Your task to perform on an android device: Open the stopwatch Image 0: 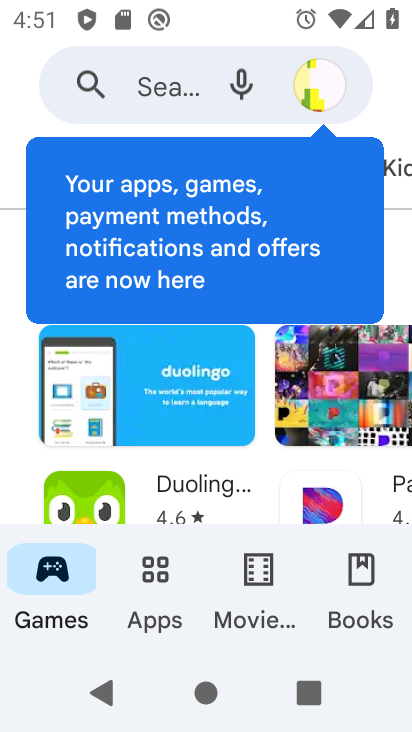
Step 0: press home button
Your task to perform on an android device: Open the stopwatch Image 1: 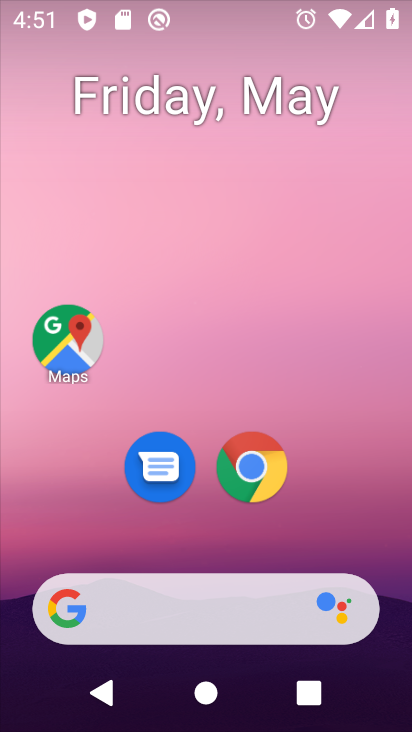
Step 1: drag from (345, 483) to (355, 81)
Your task to perform on an android device: Open the stopwatch Image 2: 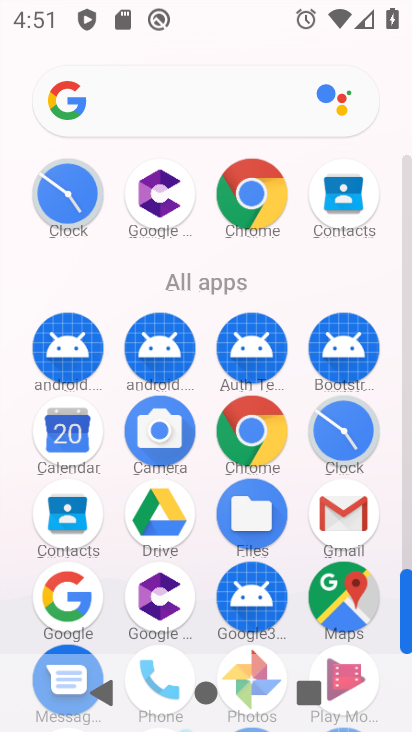
Step 2: click (316, 443)
Your task to perform on an android device: Open the stopwatch Image 3: 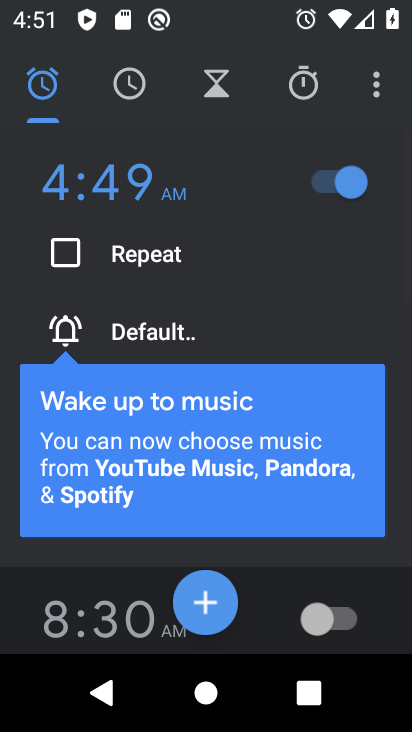
Step 3: click (316, 86)
Your task to perform on an android device: Open the stopwatch Image 4: 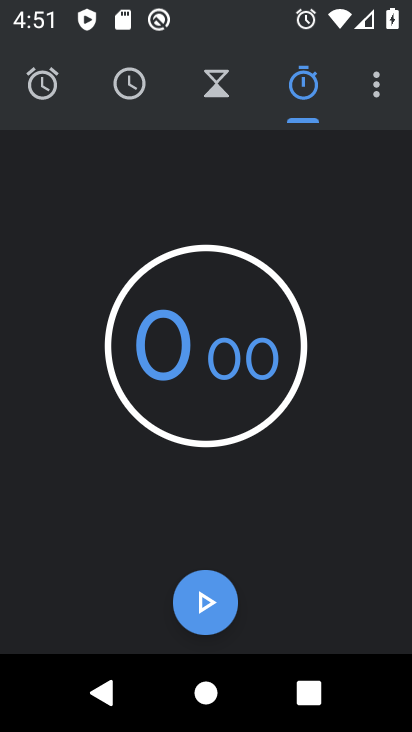
Step 4: task complete